Your task to perform on an android device: Search for a new lawnmower on Lowes. Image 0: 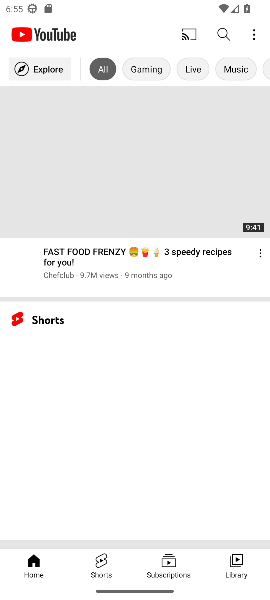
Step 0: press home button
Your task to perform on an android device: Search for a new lawnmower on Lowes. Image 1: 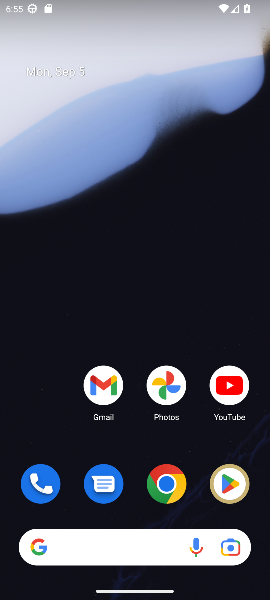
Step 1: click (164, 488)
Your task to perform on an android device: Search for a new lawnmower on Lowes. Image 2: 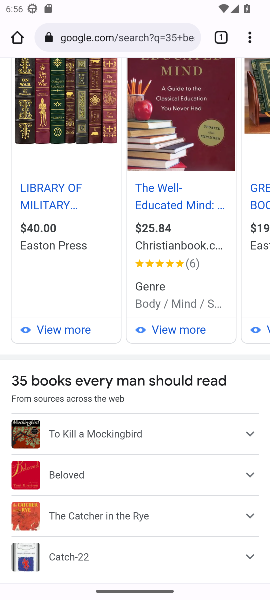
Step 2: click (122, 39)
Your task to perform on an android device: Search for a new lawnmower on Lowes. Image 3: 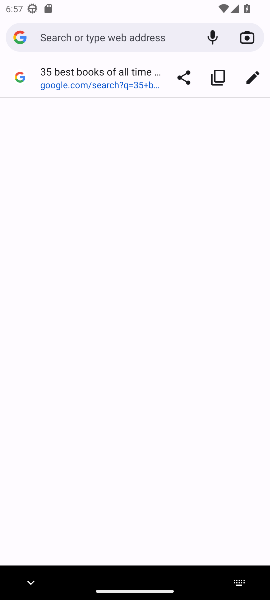
Step 3: type "Lowes"
Your task to perform on an android device: Search for a new lawnmower on Lowes. Image 4: 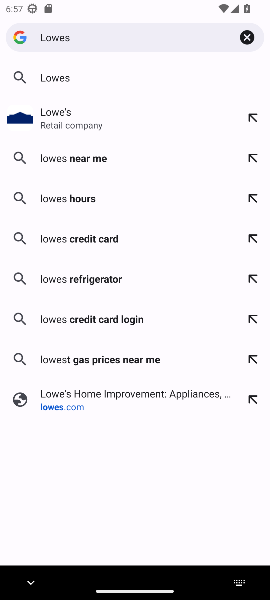
Step 4: press enter
Your task to perform on an android device: Search for a new lawnmower on Lowes. Image 5: 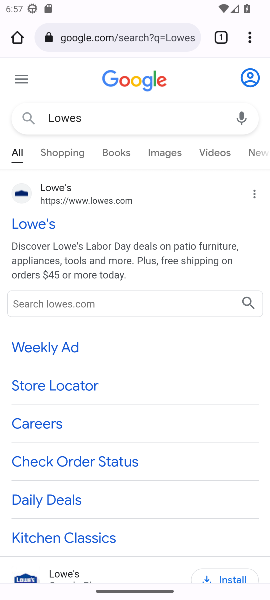
Step 5: click (4, 230)
Your task to perform on an android device: Search for a new lawnmower on Lowes. Image 6: 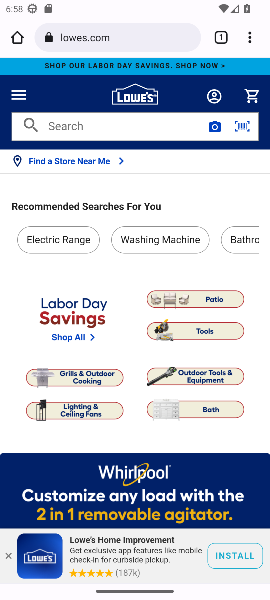
Step 6: click (78, 129)
Your task to perform on an android device: Search for a new lawnmower on Lowes. Image 7: 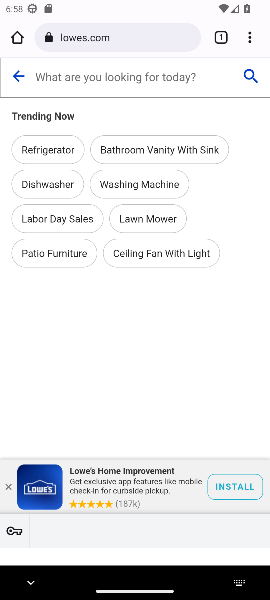
Step 7: press enter
Your task to perform on an android device: Search for a new lawnmower on Lowes. Image 8: 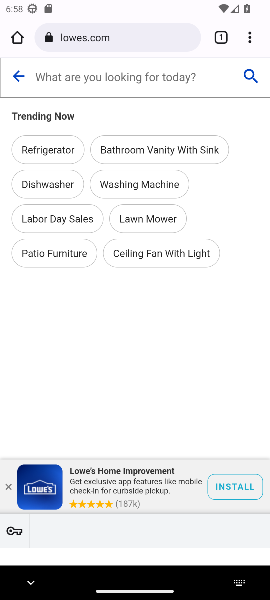
Step 8: type "new lawnmower"
Your task to perform on an android device: Search for a new lawnmower on Lowes. Image 9: 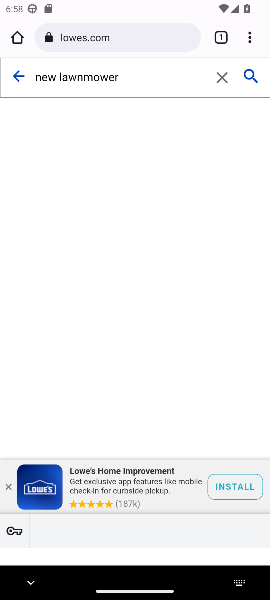
Step 9: press enter
Your task to perform on an android device: Search for a new lawnmower on Lowes. Image 10: 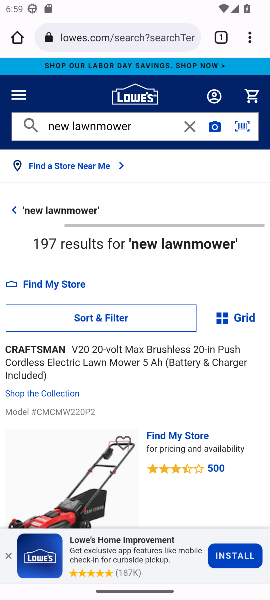
Step 10: task complete